Your task to perform on an android device: turn vacation reply on in the gmail app Image 0: 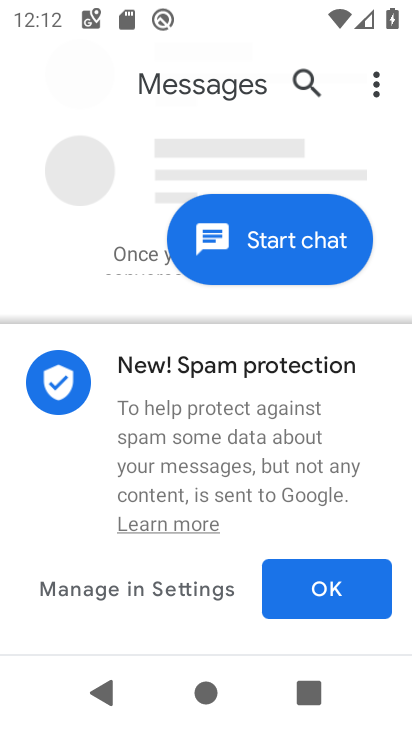
Step 0: press home button
Your task to perform on an android device: turn vacation reply on in the gmail app Image 1: 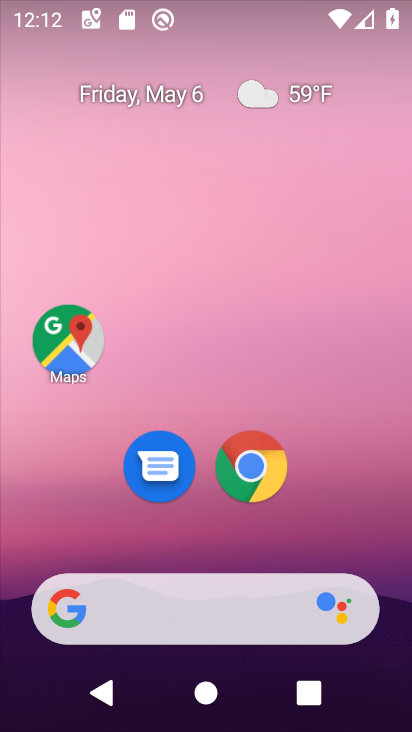
Step 1: drag from (372, 556) to (299, 114)
Your task to perform on an android device: turn vacation reply on in the gmail app Image 2: 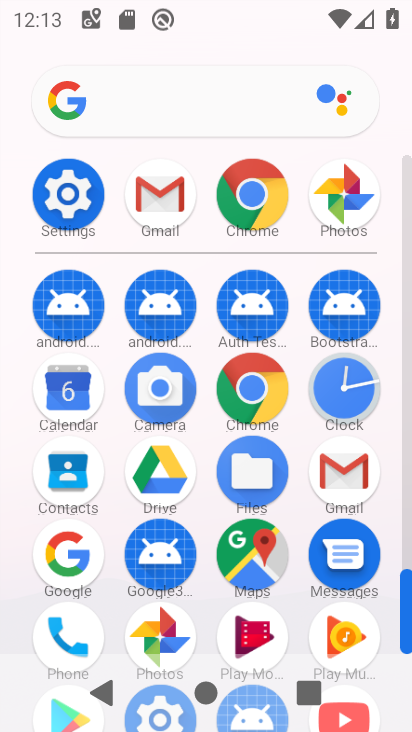
Step 2: drag from (390, 526) to (385, 453)
Your task to perform on an android device: turn vacation reply on in the gmail app Image 3: 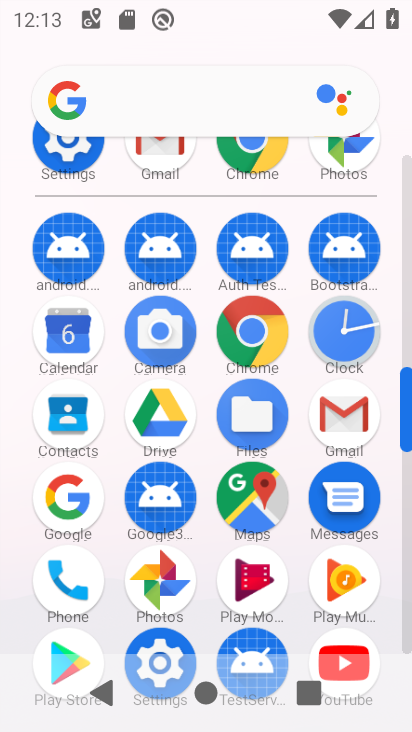
Step 3: click (340, 415)
Your task to perform on an android device: turn vacation reply on in the gmail app Image 4: 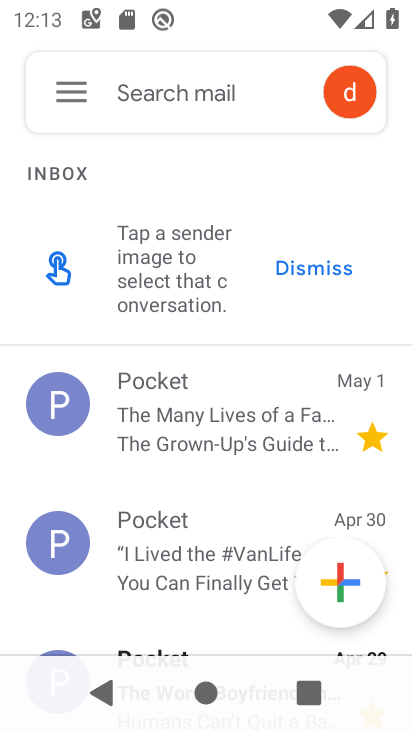
Step 4: click (78, 101)
Your task to perform on an android device: turn vacation reply on in the gmail app Image 5: 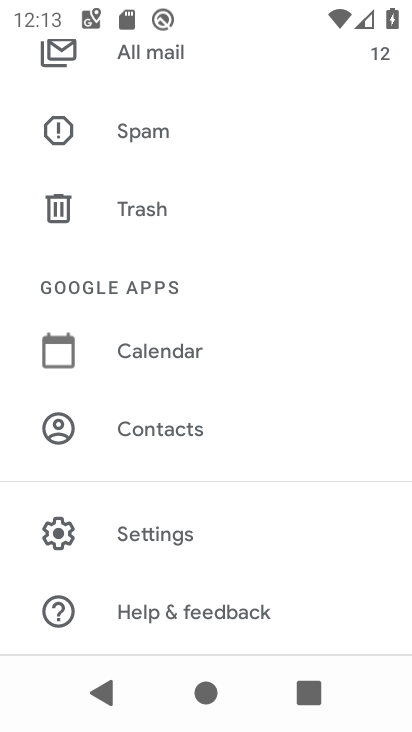
Step 5: click (208, 539)
Your task to perform on an android device: turn vacation reply on in the gmail app Image 6: 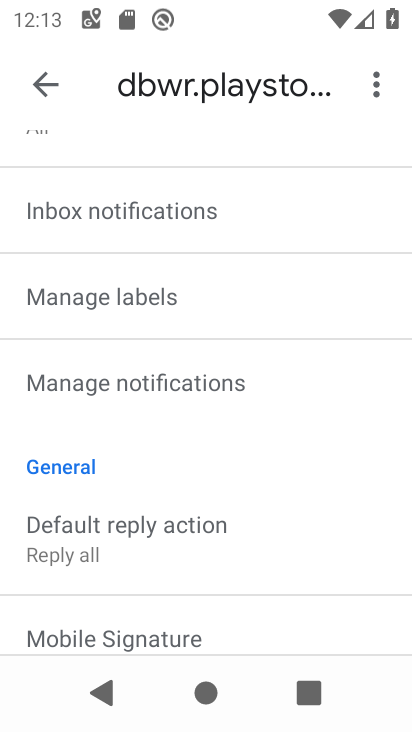
Step 6: drag from (249, 600) to (262, 161)
Your task to perform on an android device: turn vacation reply on in the gmail app Image 7: 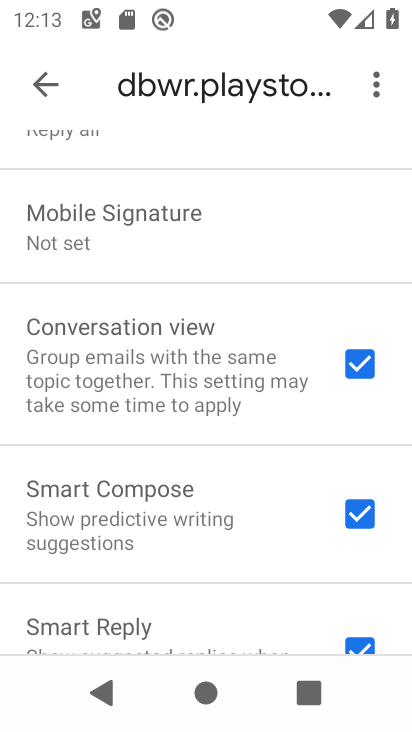
Step 7: drag from (259, 516) to (235, 206)
Your task to perform on an android device: turn vacation reply on in the gmail app Image 8: 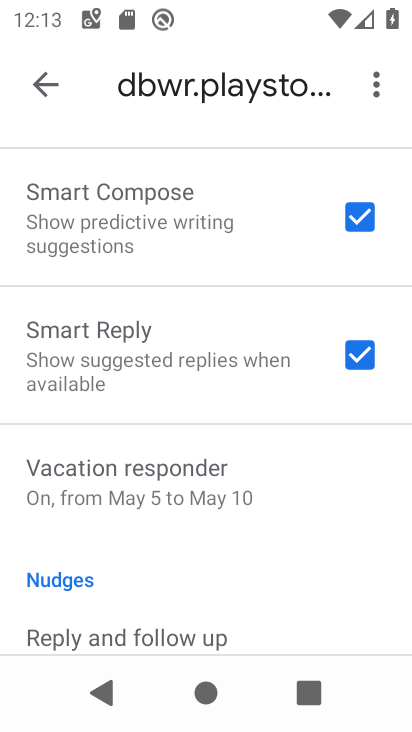
Step 8: click (265, 491)
Your task to perform on an android device: turn vacation reply on in the gmail app Image 9: 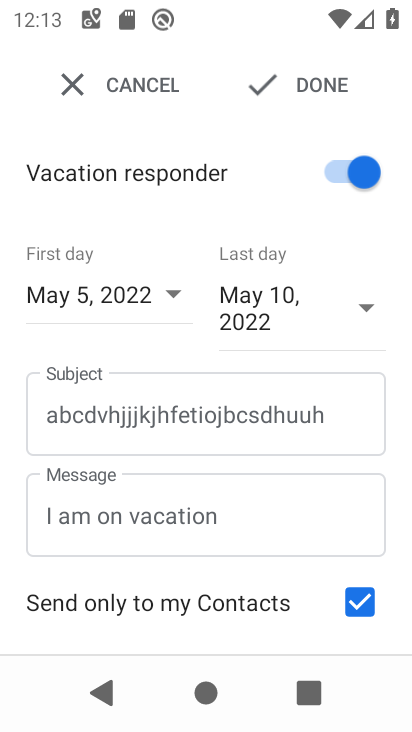
Step 9: click (325, 302)
Your task to perform on an android device: turn vacation reply on in the gmail app Image 10: 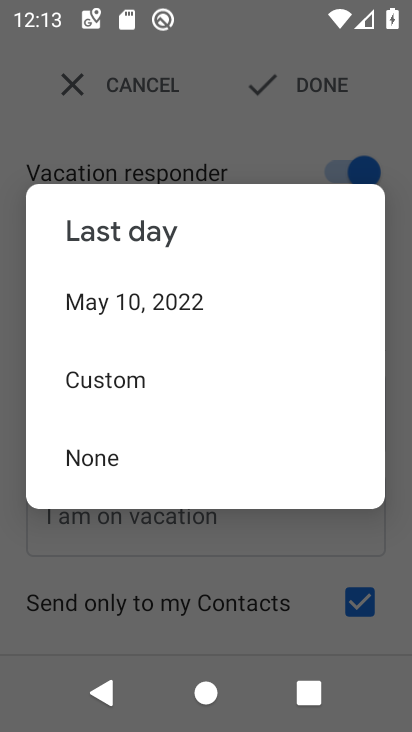
Step 10: click (169, 379)
Your task to perform on an android device: turn vacation reply on in the gmail app Image 11: 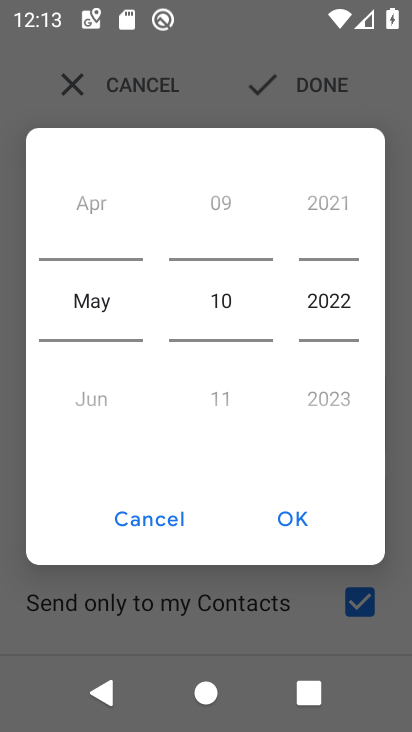
Step 11: drag from (227, 311) to (218, 156)
Your task to perform on an android device: turn vacation reply on in the gmail app Image 12: 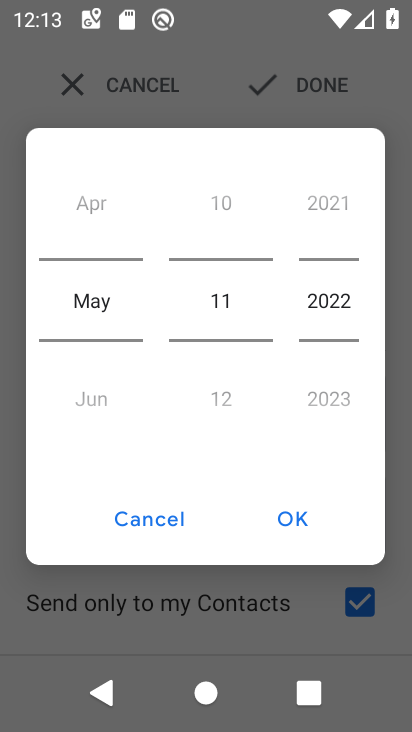
Step 12: click (282, 513)
Your task to perform on an android device: turn vacation reply on in the gmail app Image 13: 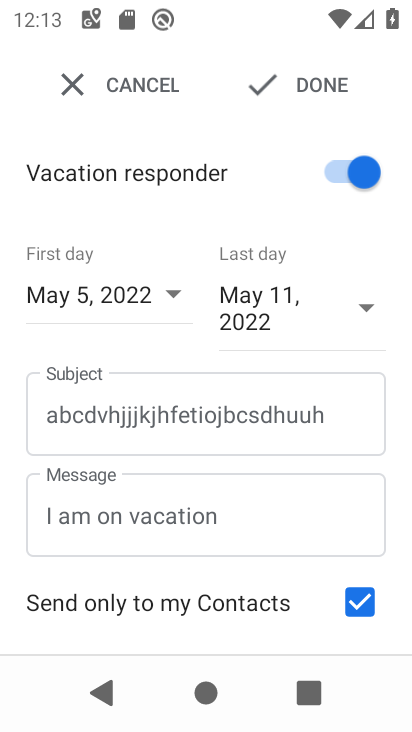
Step 13: click (305, 93)
Your task to perform on an android device: turn vacation reply on in the gmail app Image 14: 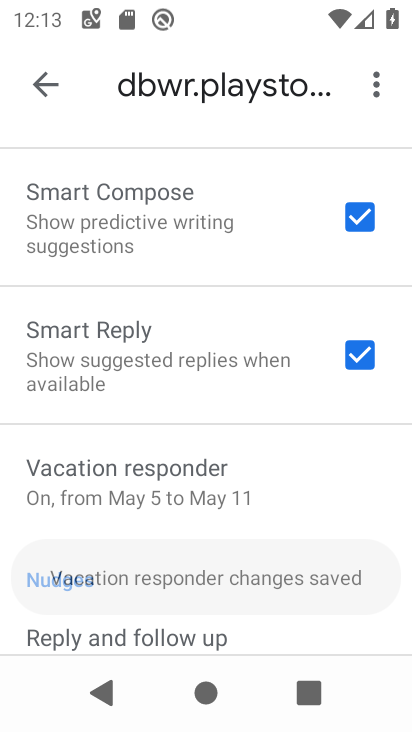
Step 14: task complete